Your task to perform on an android device: Go to battery settings Image 0: 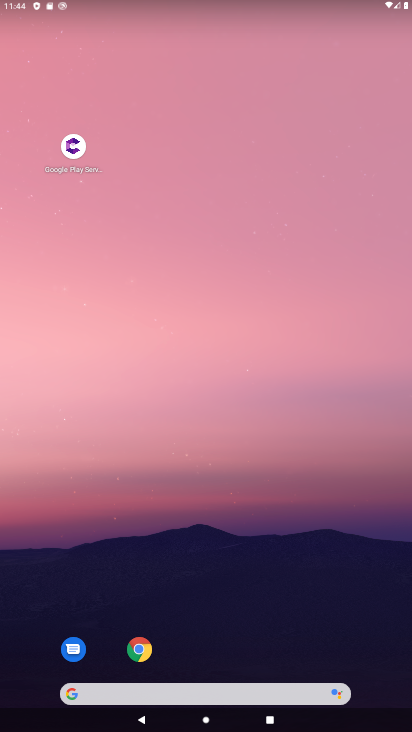
Step 0: drag from (356, 655) to (238, 30)
Your task to perform on an android device: Go to battery settings Image 1: 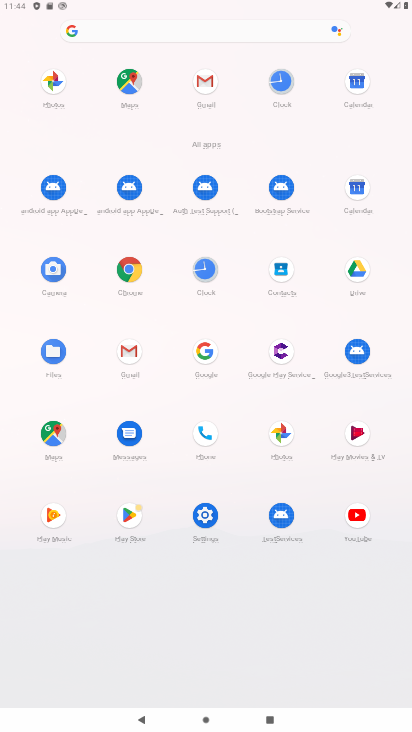
Step 1: click (204, 537)
Your task to perform on an android device: Go to battery settings Image 2: 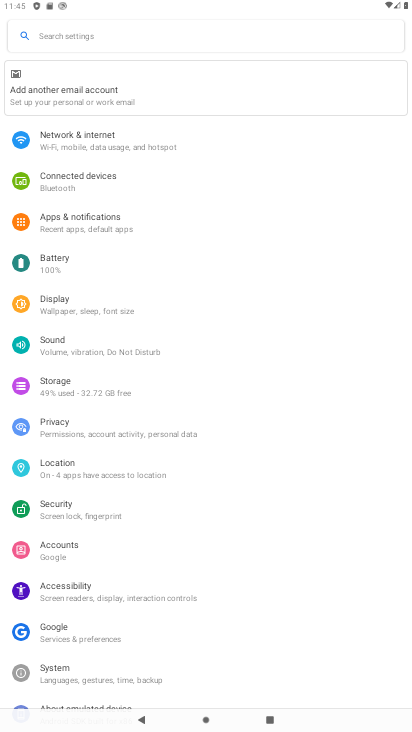
Step 2: click (84, 266)
Your task to perform on an android device: Go to battery settings Image 3: 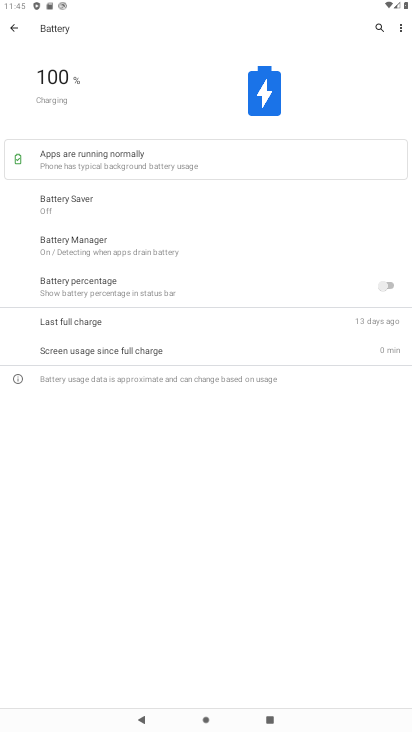
Step 3: task complete